Your task to perform on an android device: Open the Play Movies app and select the watchlist tab. Image 0: 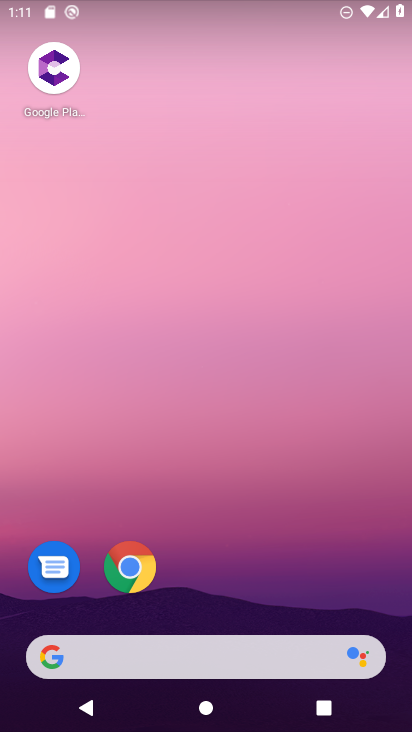
Step 0: drag from (380, 616) to (340, 63)
Your task to perform on an android device: Open the Play Movies app and select the watchlist tab. Image 1: 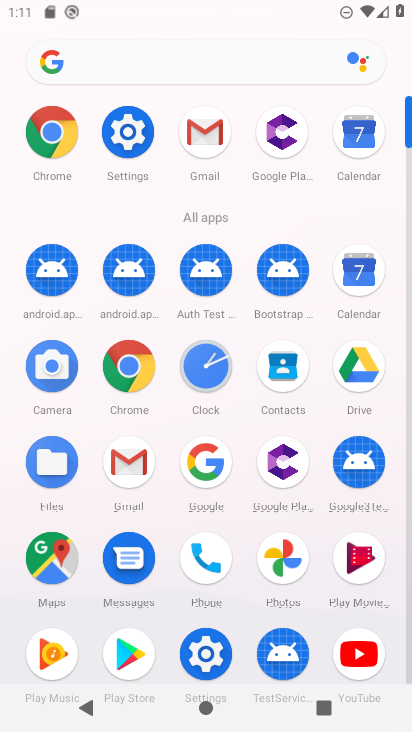
Step 1: click (346, 549)
Your task to perform on an android device: Open the Play Movies app and select the watchlist tab. Image 2: 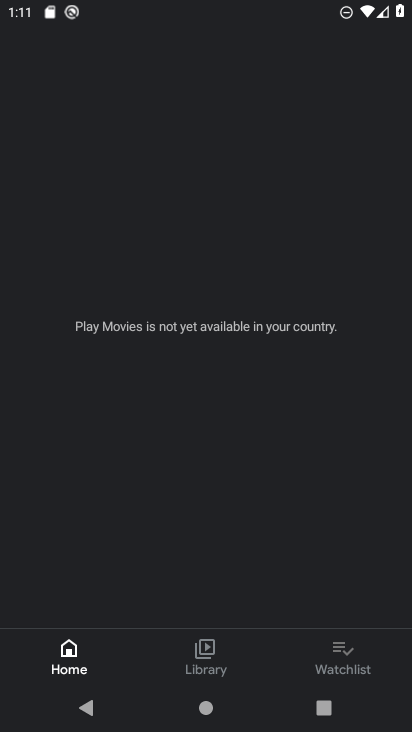
Step 2: click (356, 659)
Your task to perform on an android device: Open the Play Movies app and select the watchlist tab. Image 3: 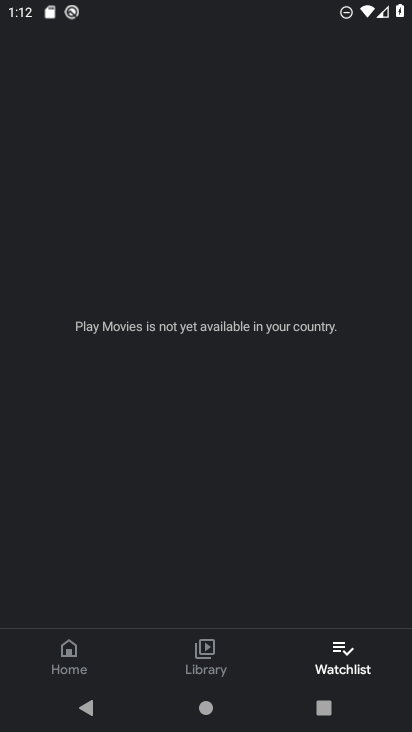
Step 3: task complete